Your task to perform on an android device: Open the map Image 0: 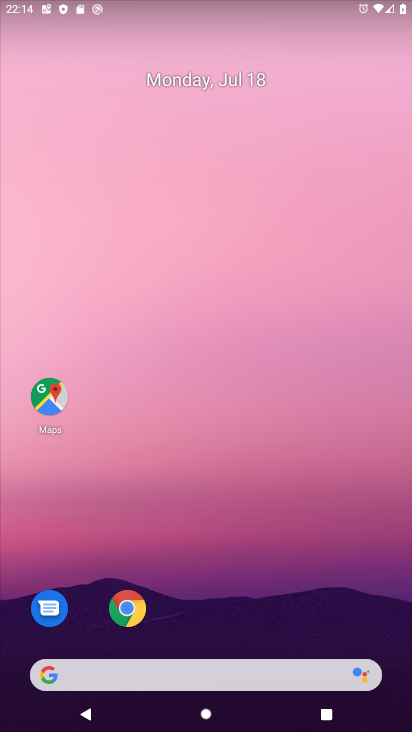
Step 0: click (43, 386)
Your task to perform on an android device: Open the map Image 1: 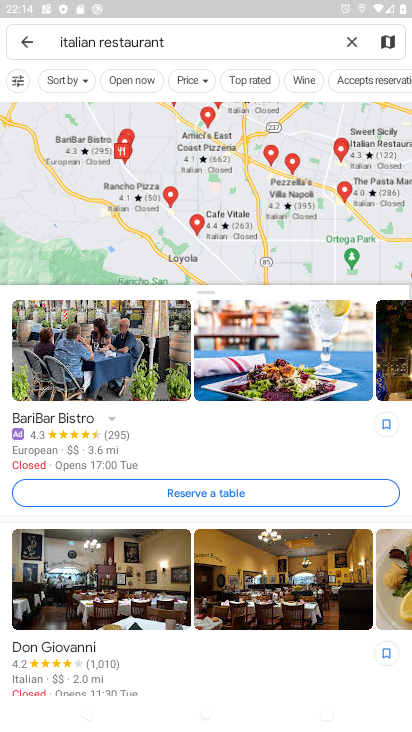
Step 1: click (24, 41)
Your task to perform on an android device: Open the map Image 2: 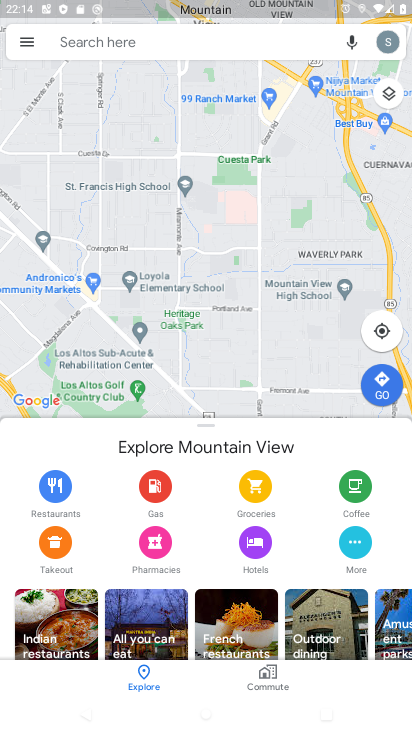
Step 2: task complete